Your task to perform on an android device: turn vacation reply on in the gmail app Image 0: 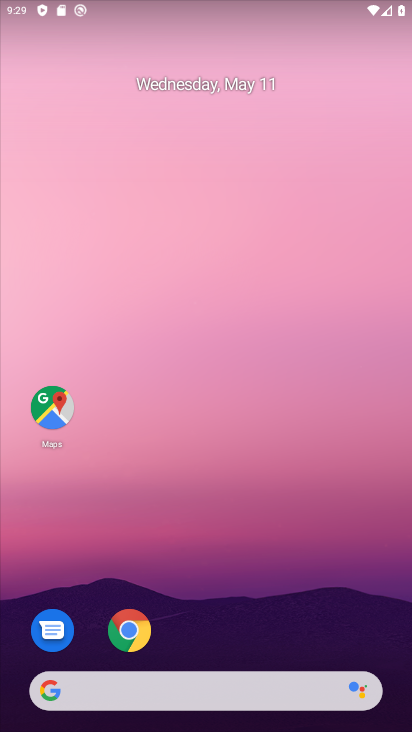
Step 0: drag from (235, 493) to (213, 80)
Your task to perform on an android device: turn vacation reply on in the gmail app Image 1: 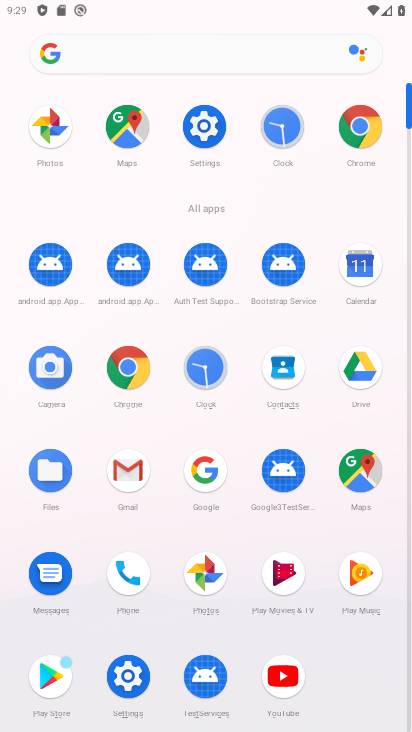
Step 1: click (128, 464)
Your task to perform on an android device: turn vacation reply on in the gmail app Image 2: 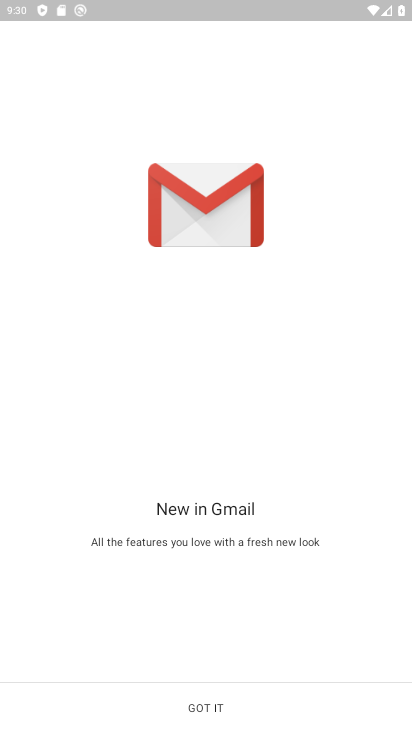
Step 2: click (209, 705)
Your task to perform on an android device: turn vacation reply on in the gmail app Image 3: 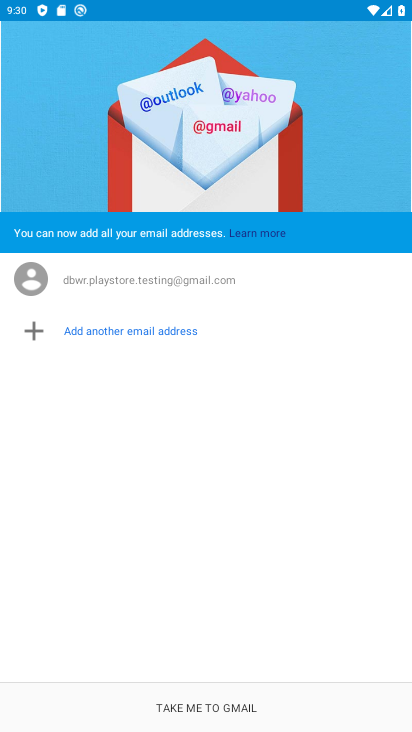
Step 3: click (199, 709)
Your task to perform on an android device: turn vacation reply on in the gmail app Image 4: 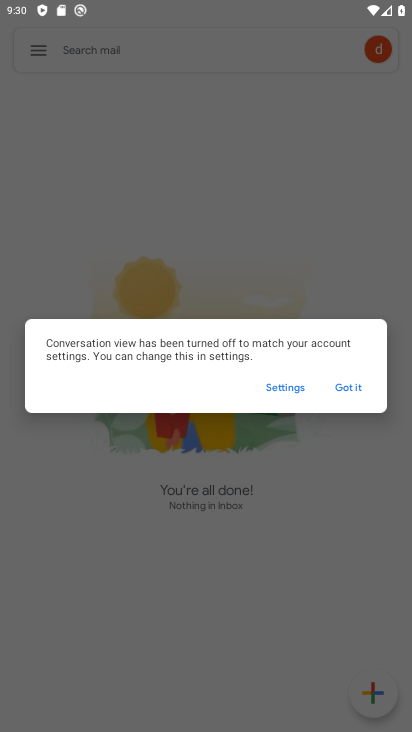
Step 4: drag from (360, 384) to (371, 553)
Your task to perform on an android device: turn vacation reply on in the gmail app Image 5: 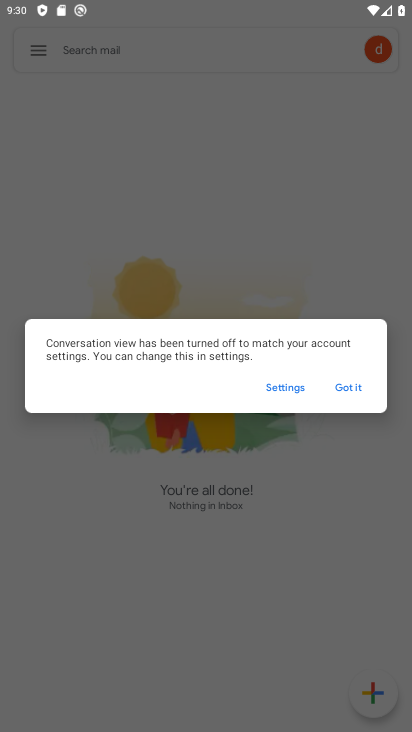
Step 5: click (355, 393)
Your task to perform on an android device: turn vacation reply on in the gmail app Image 6: 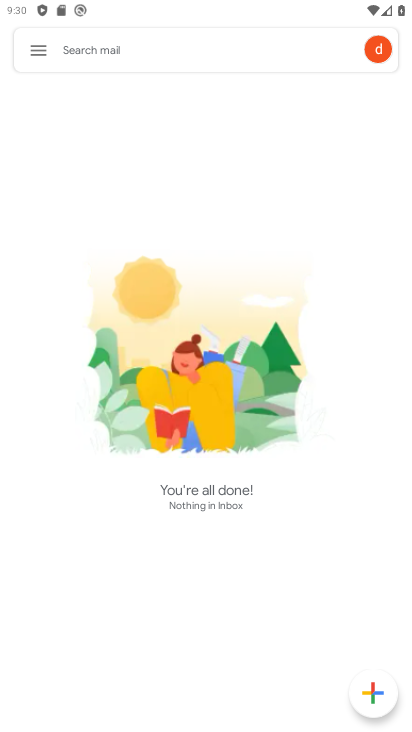
Step 6: click (33, 43)
Your task to perform on an android device: turn vacation reply on in the gmail app Image 7: 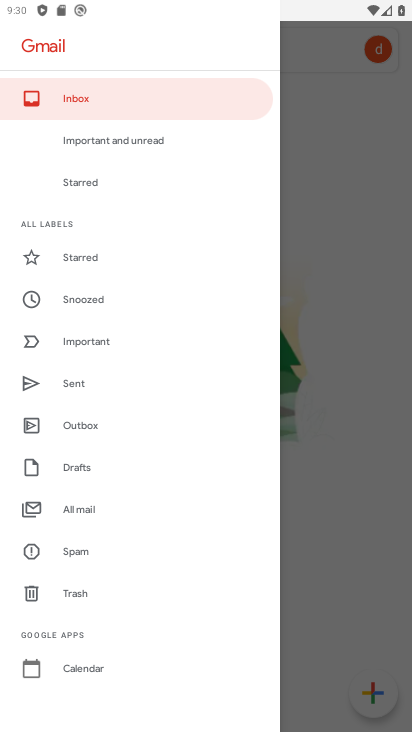
Step 7: drag from (135, 616) to (175, 160)
Your task to perform on an android device: turn vacation reply on in the gmail app Image 8: 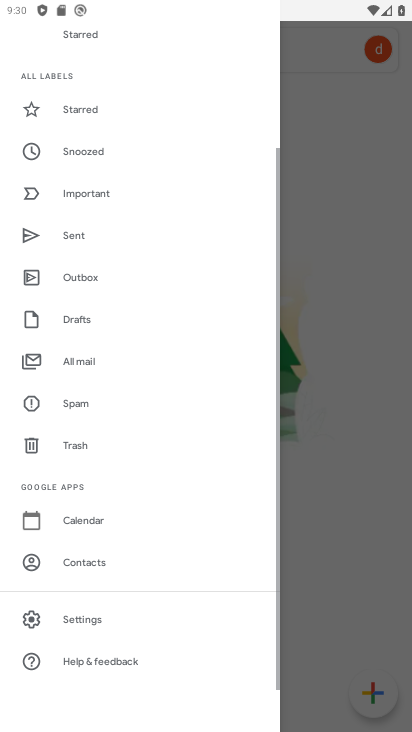
Step 8: click (95, 613)
Your task to perform on an android device: turn vacation reply on in the gmail app Image 9: 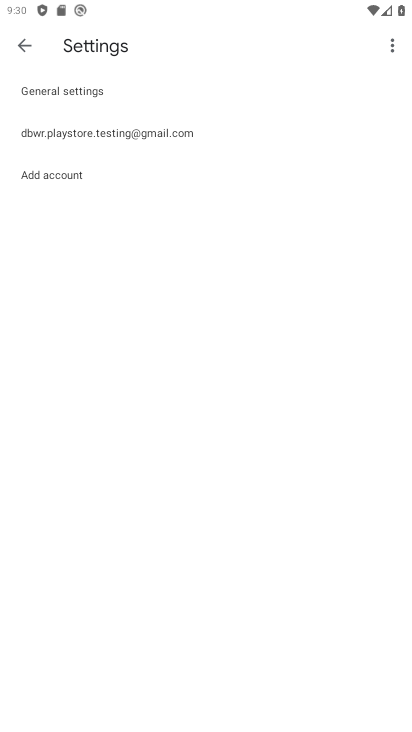
Step 9: click (151, 124)
Your task to perform on an android device: turn vacation reply on in the gmail app Image 10: 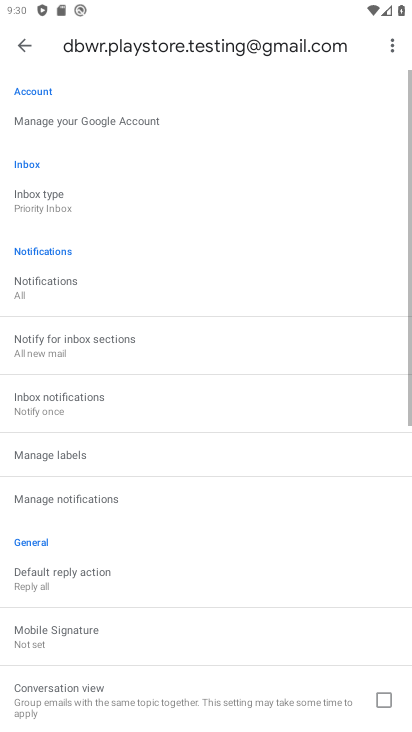
Step 10: drag from (168, 607) to (258, 195)
Your task to perform on an android device: turn vacation reply on in the gmail app Image 11: 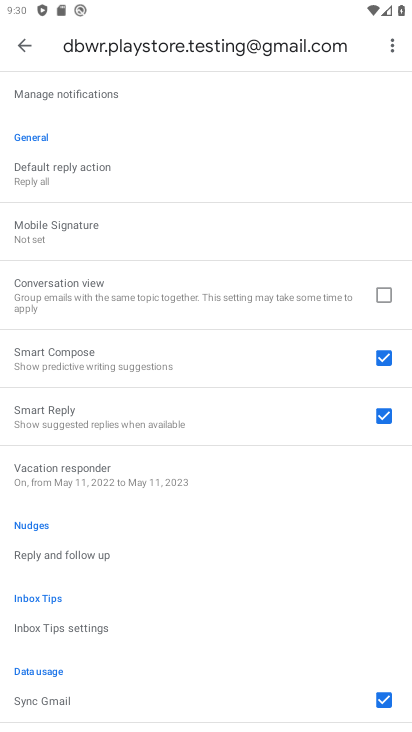
Step 11: click (223, 484)
Your task to perform on an android device: turn vacation reply on in the gmail app Image 12: 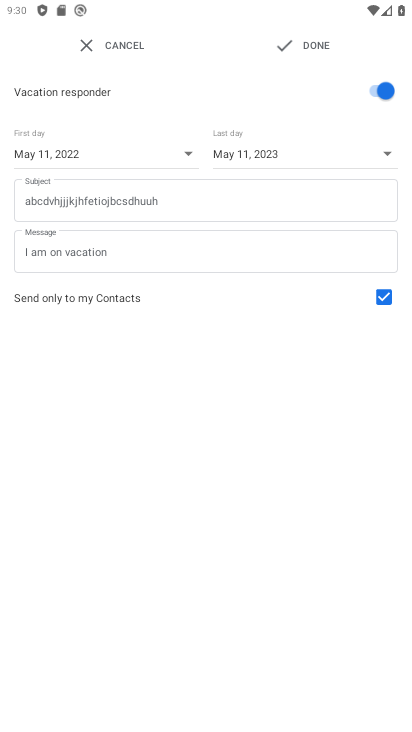
Step 12: task complete